Your task to perform on an android device: What's the news in Barbados? Image 0: 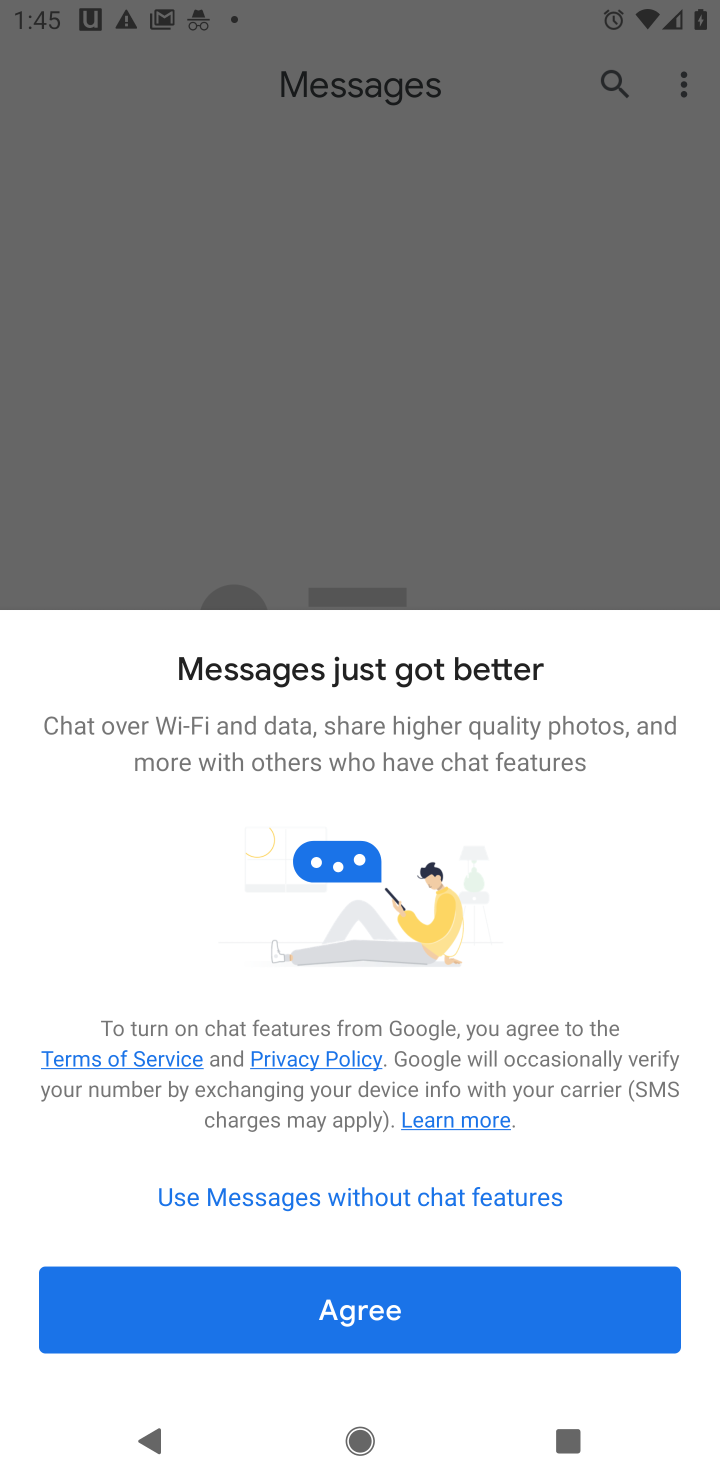
Step 0: press home button
Your task to perform on an android device: What's the news in Barbados? Image 1: 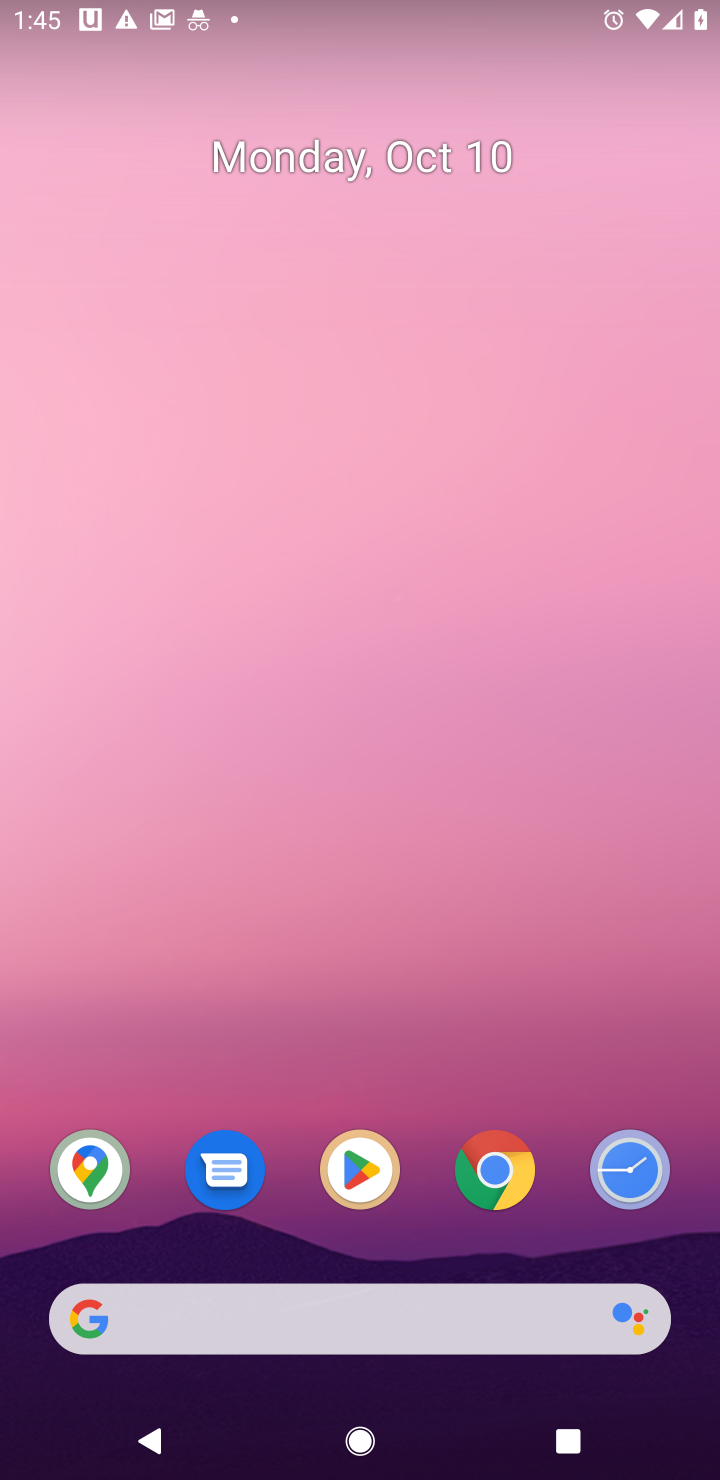
Step 1: click (485, 1166)
Your task to perform on an android device: What's the news in Barbados? Image 2: 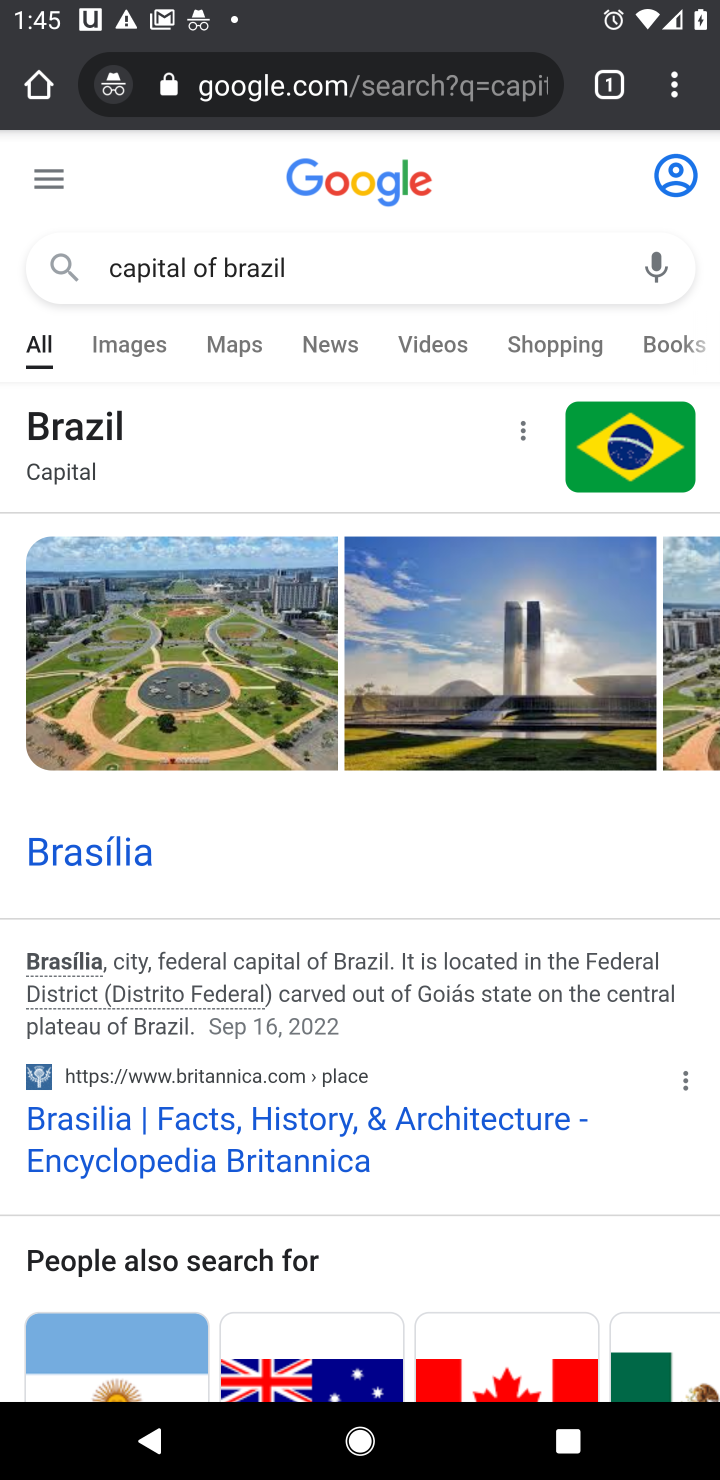
Step 2: click (385, 84)
Your task to perform on an android device: What's the news in Barbados? Image 3: 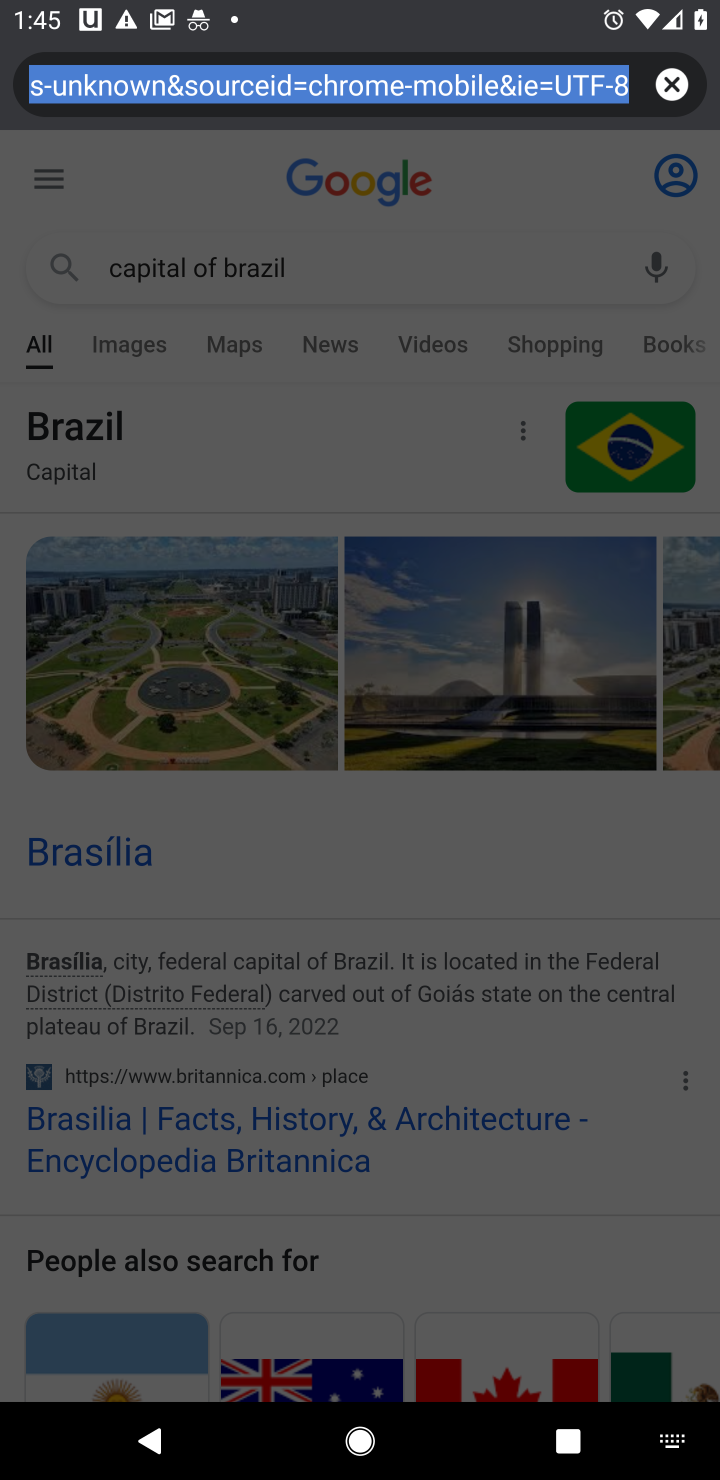
Step 3: click (675, 84)
Your task to perform on an android device: What's the news in Barbados? Image 4: 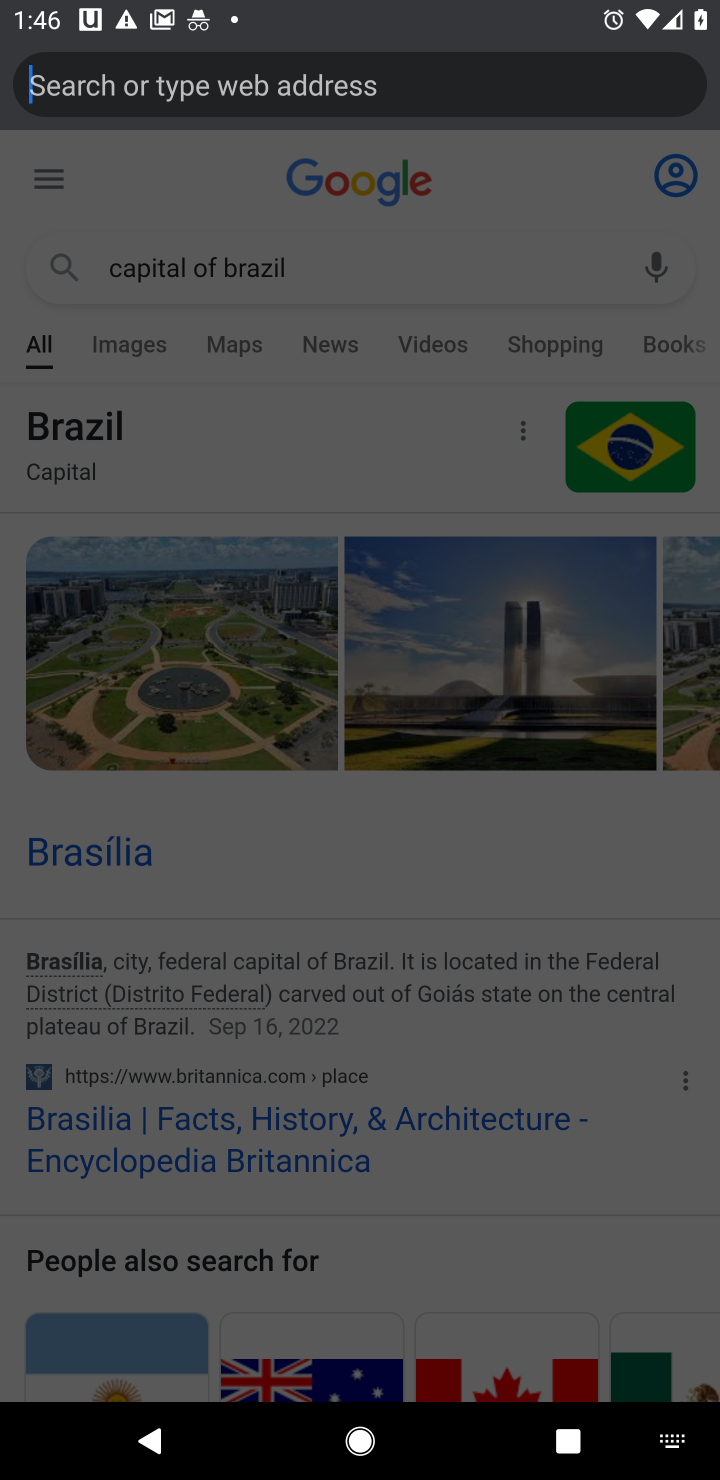
Step 4: type "news in barbados"
Your task to perform on an android device: What's the news in Barbados? Image 5: 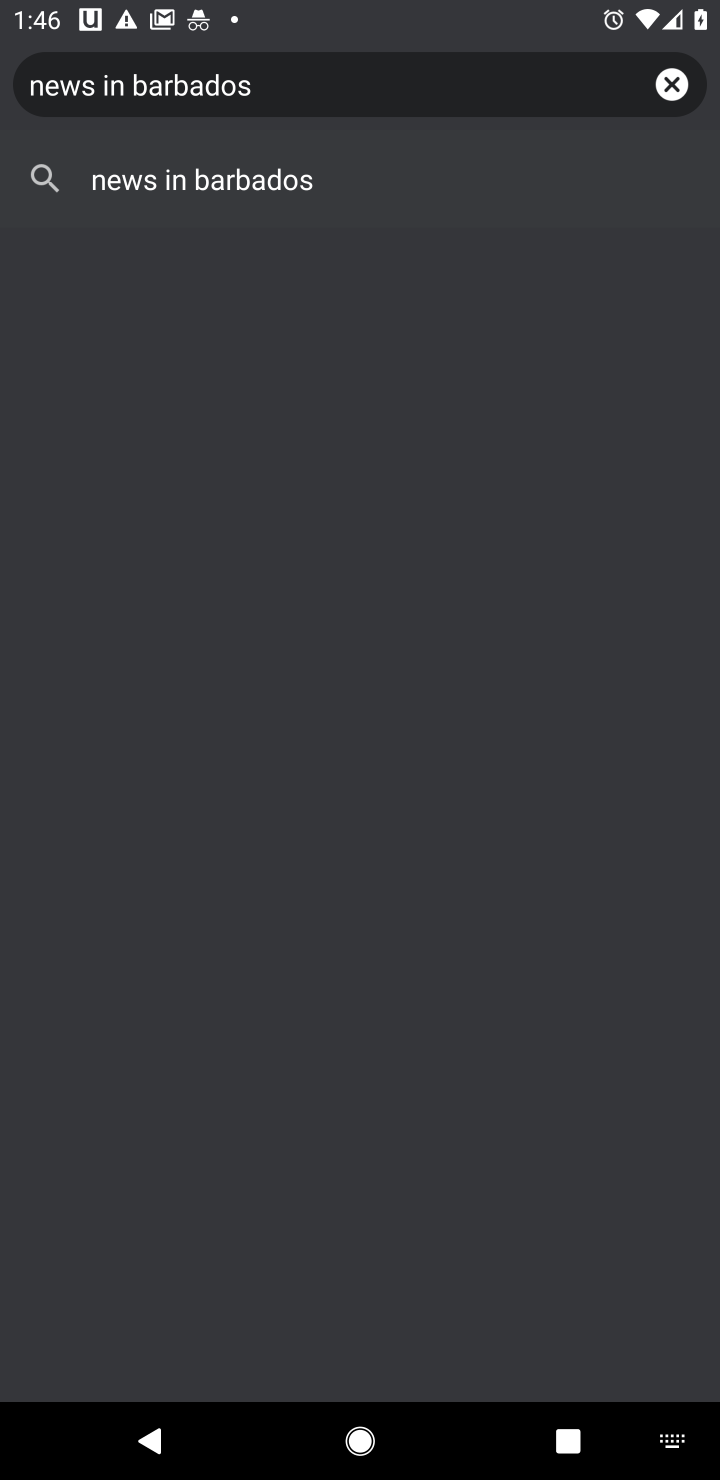
Step 5: type ""
Your task to perform on an android device: What's the news in Barbados? Image 6: 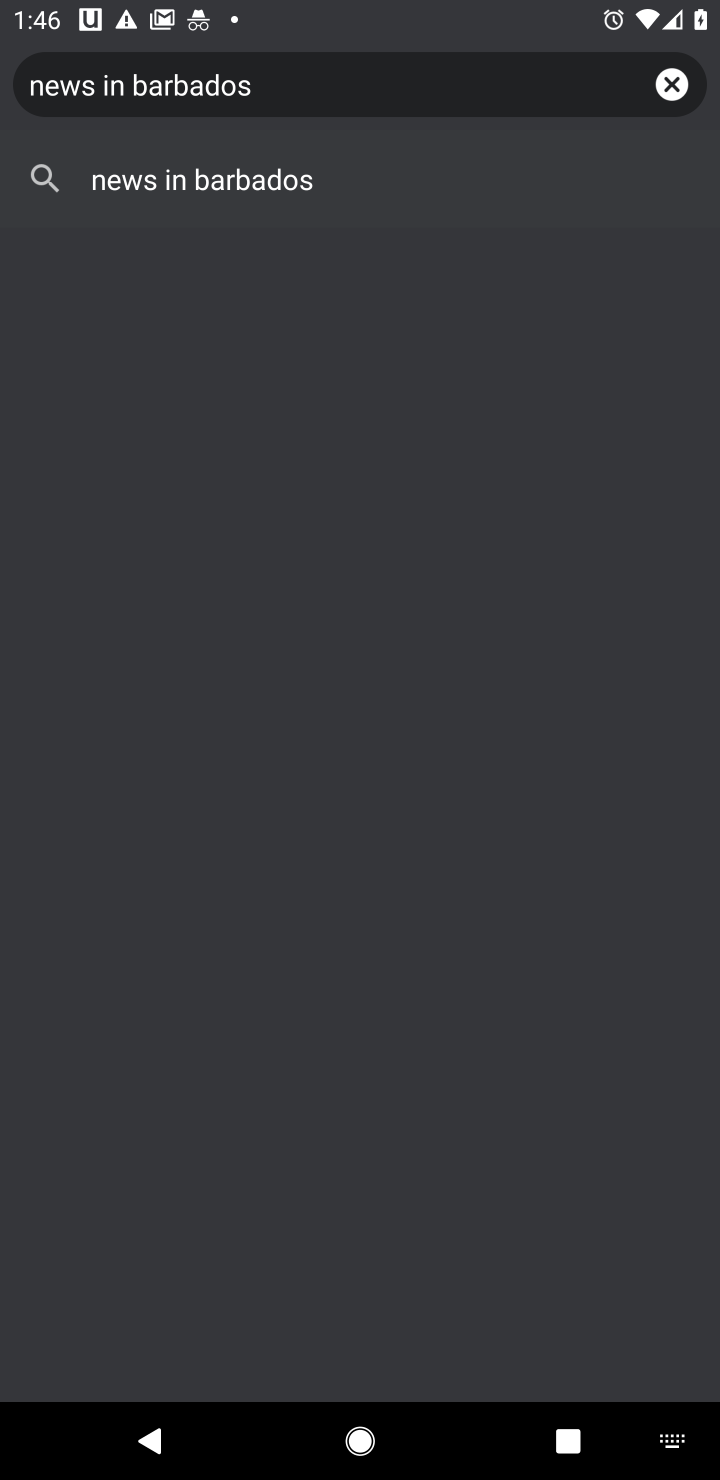
Step 6: click (148, 198)
Your task to perform on an android device: What's the news in Barbados? Image 7: 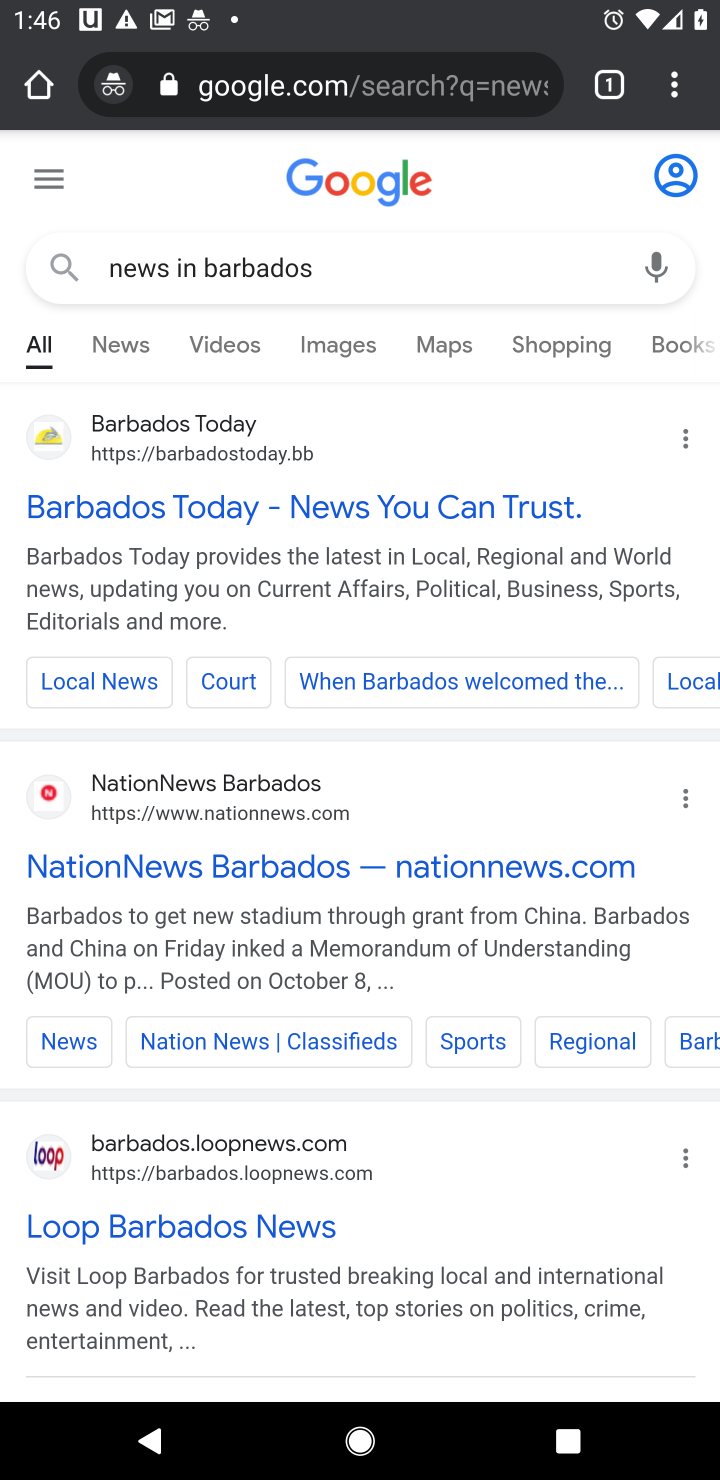
Step 7: click (245, 867)
Your task to perform on an android device: What's the news in Barbados? Image 8: 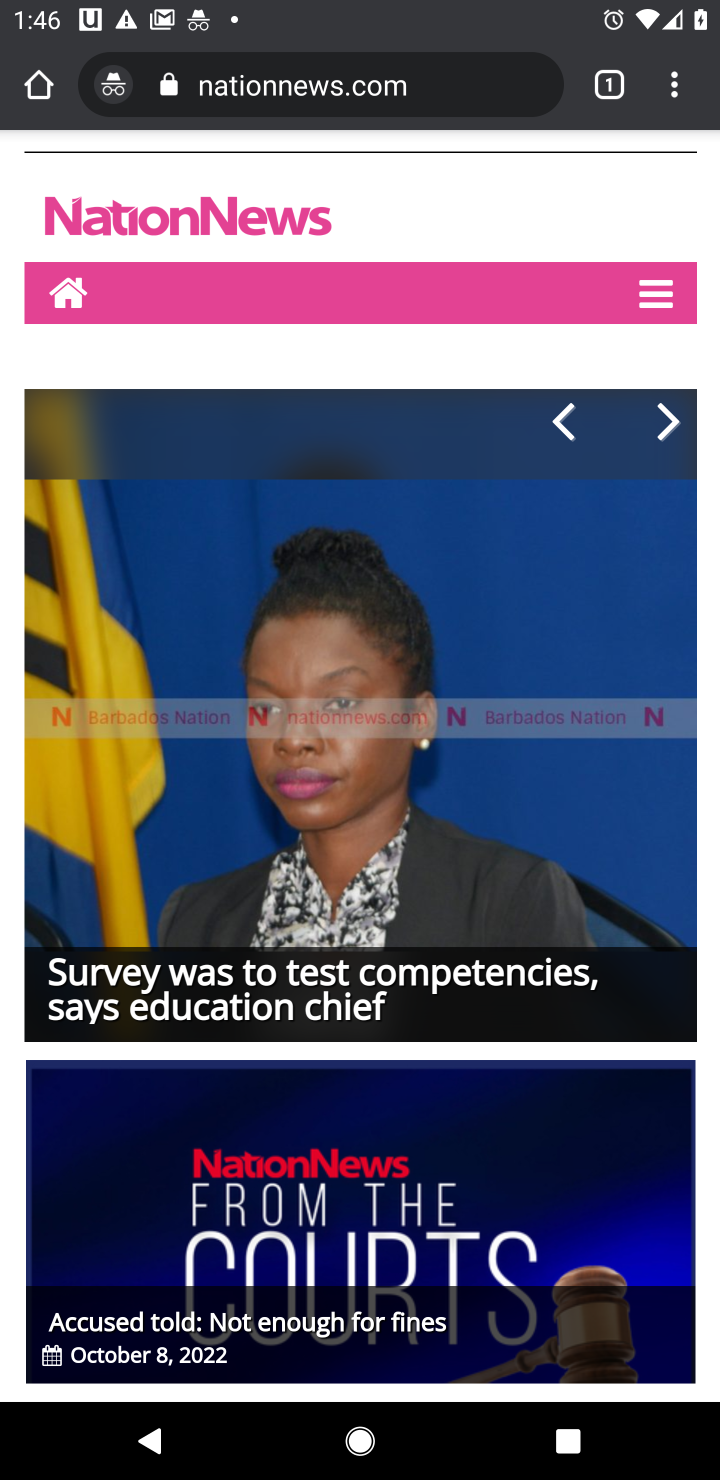
Step 8: task complete